Your task to perform on an android device: turn notification dots on Image 0: 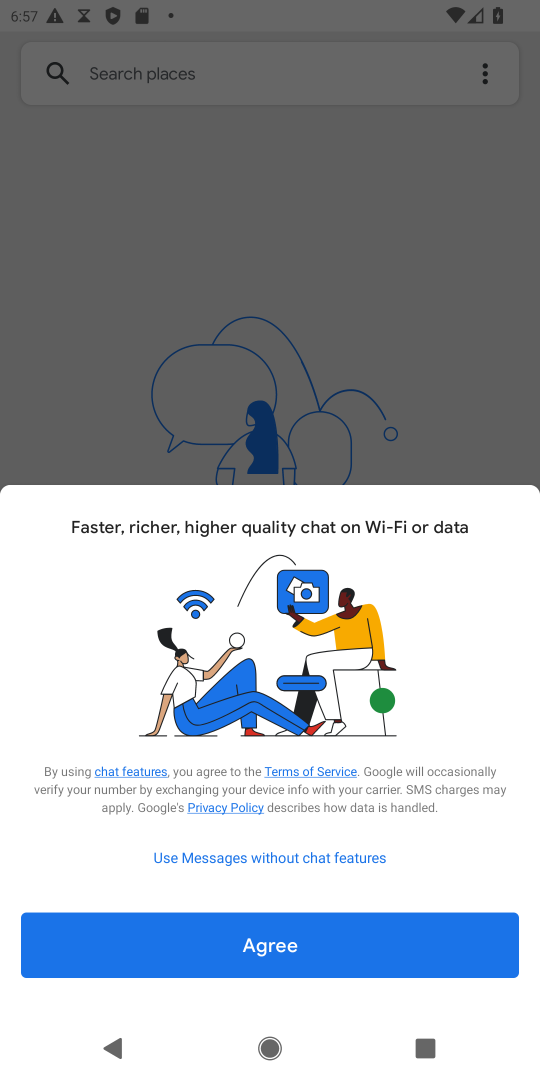
Step 0: press home button
Your task to perform on an android device: turn notification dots on Image 1: 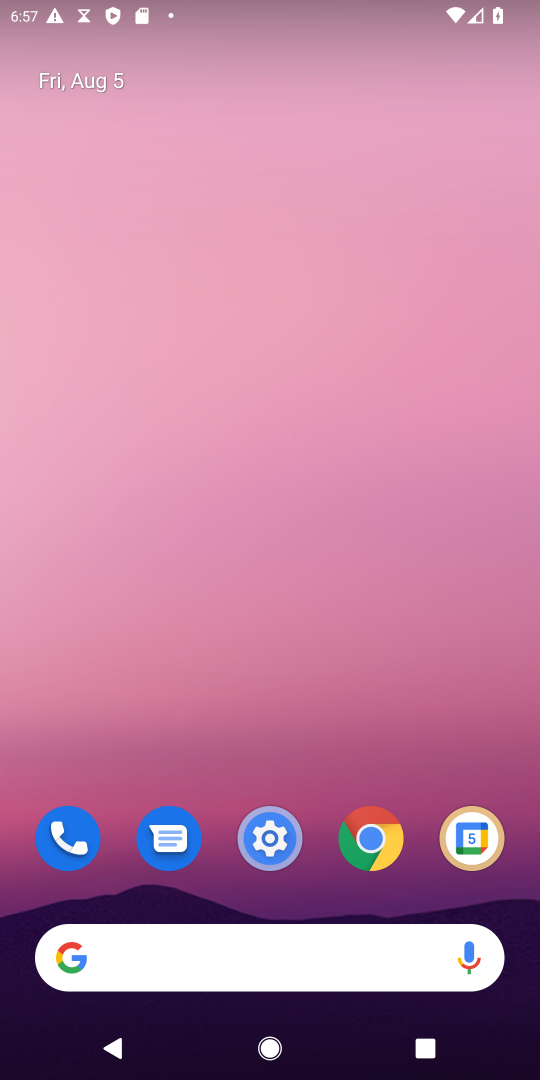
Step 1: drag from (286, 714) to (348, 29)
Your task to perform on an android device: turn notification dots on Image 2: 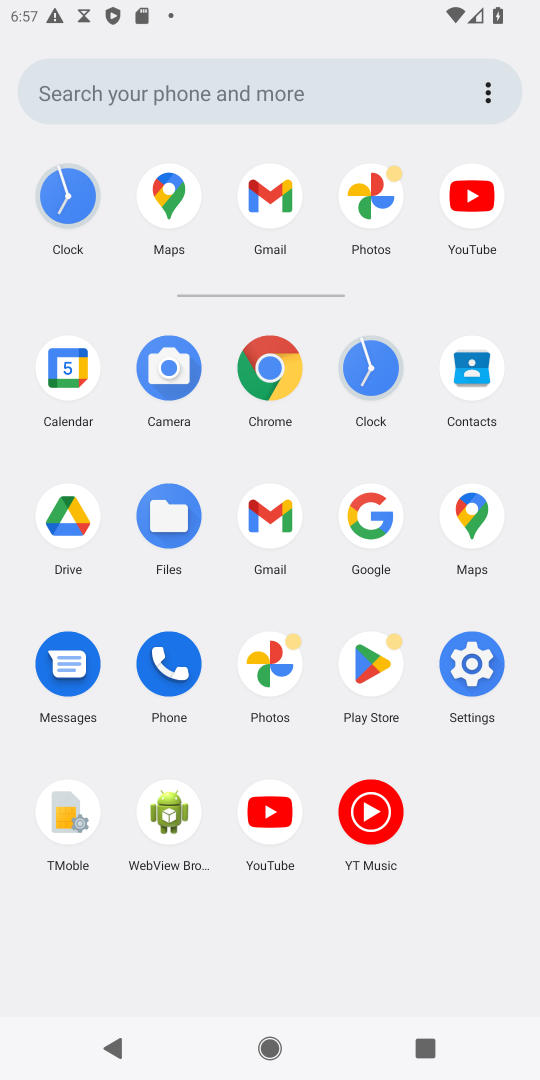
Step 2: click (466, 651)
Your task to perform on an android device: turn notification dots on Image 3: 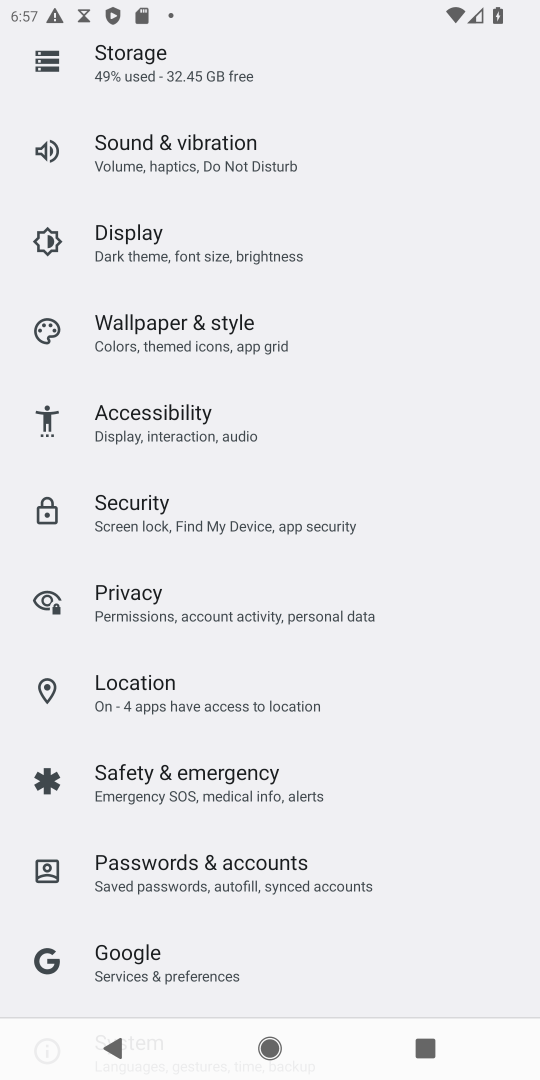
Step 3: drag from (131, 100) to (169, 875)
Your task to perform on an android device: turn notification dots on Image 4: 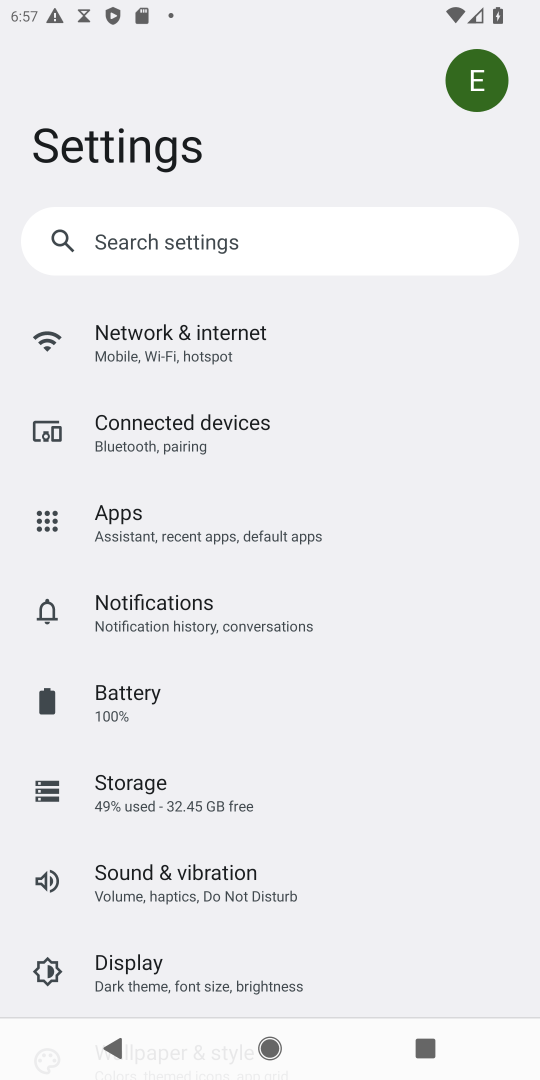
Step 4: click (191, 604)
Your task to perform on an android device: turn notification dots on Image 5: 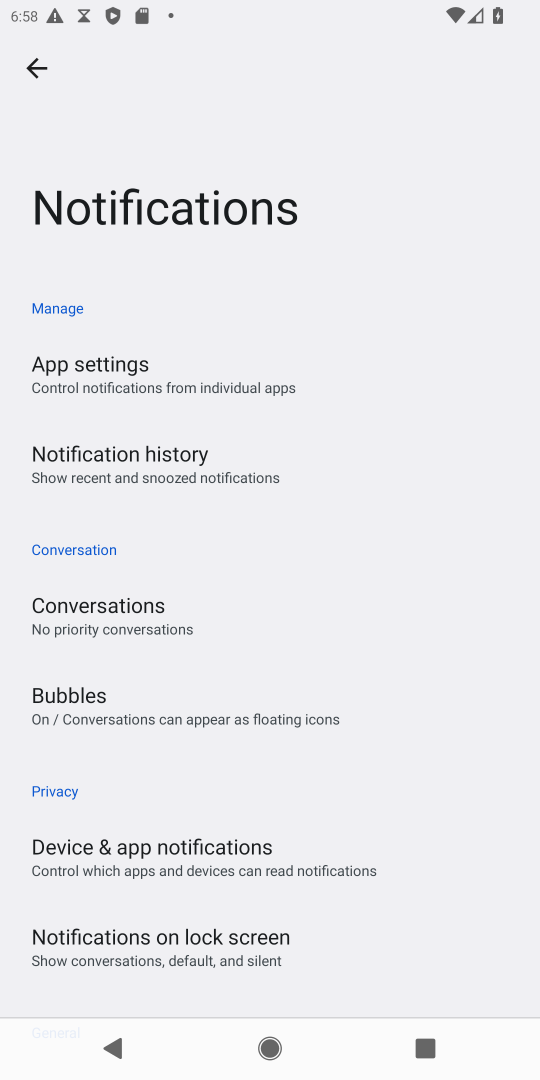
Step 5: drag from (129, 893) to (103, 396)
Your task to perform on an android device: turn notification dots on Image 6: 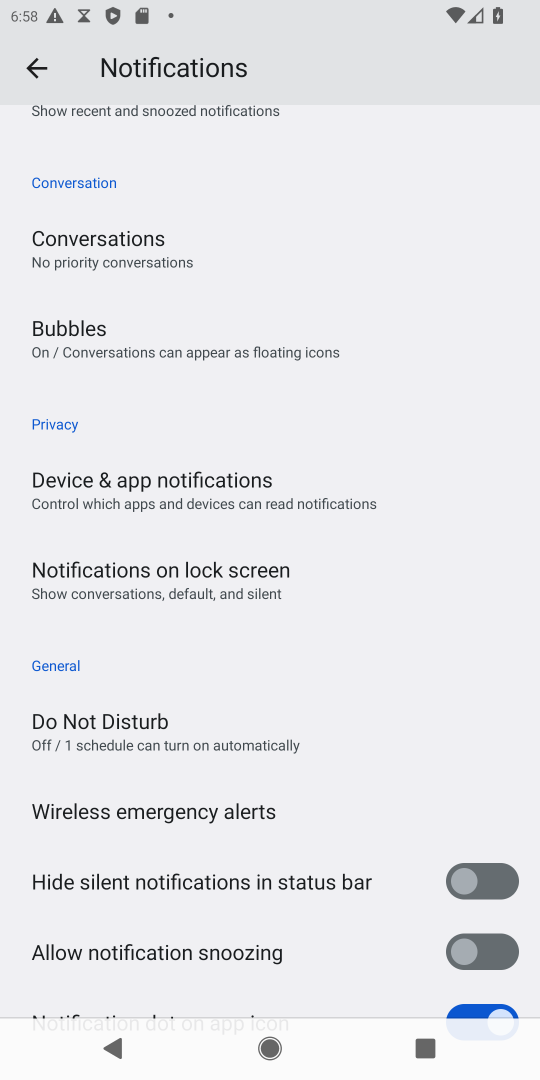
Step 6: drag from (142, 663) to (123, 243)
Your task to perform on an android device: turn notification dots on Image 7: 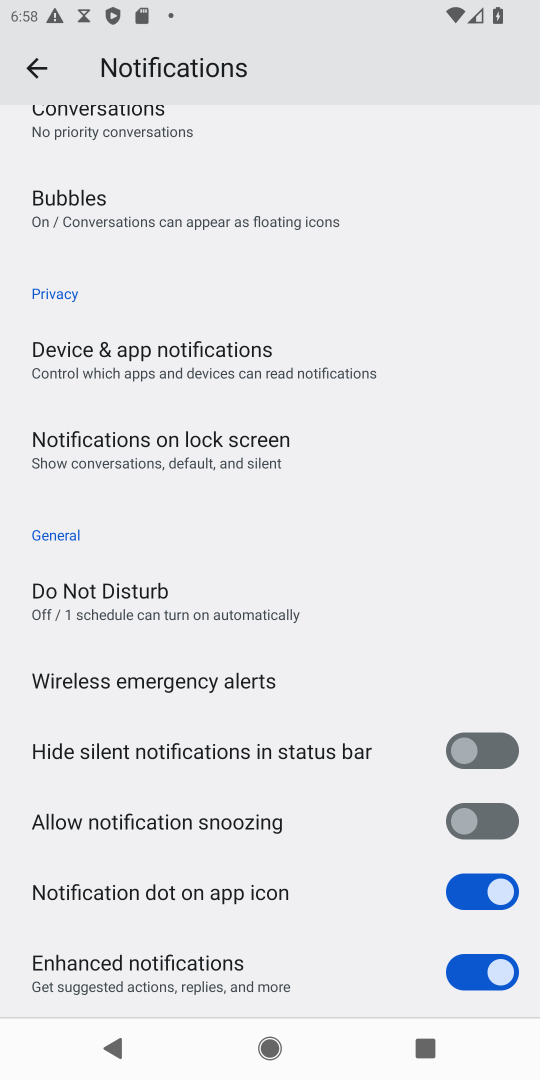
Step 7: drag from (140, 623) to (141, 85)
Your task to perform on an android device: turn notification dots on Image 8: 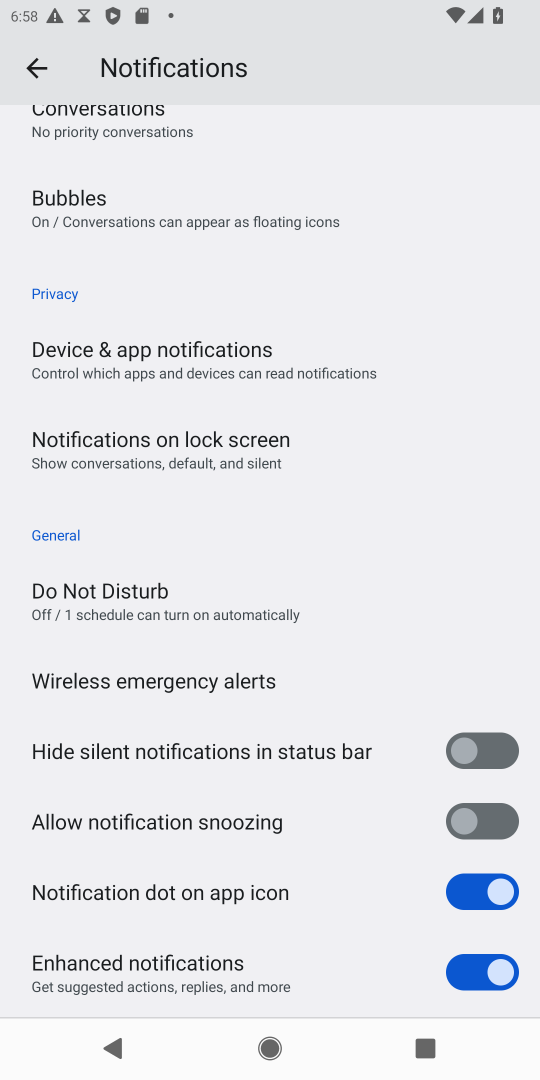
Step 8: drag from (117, 545) to (146, 858)
Your task to perform on an android device: turn notification dots on Image 9: 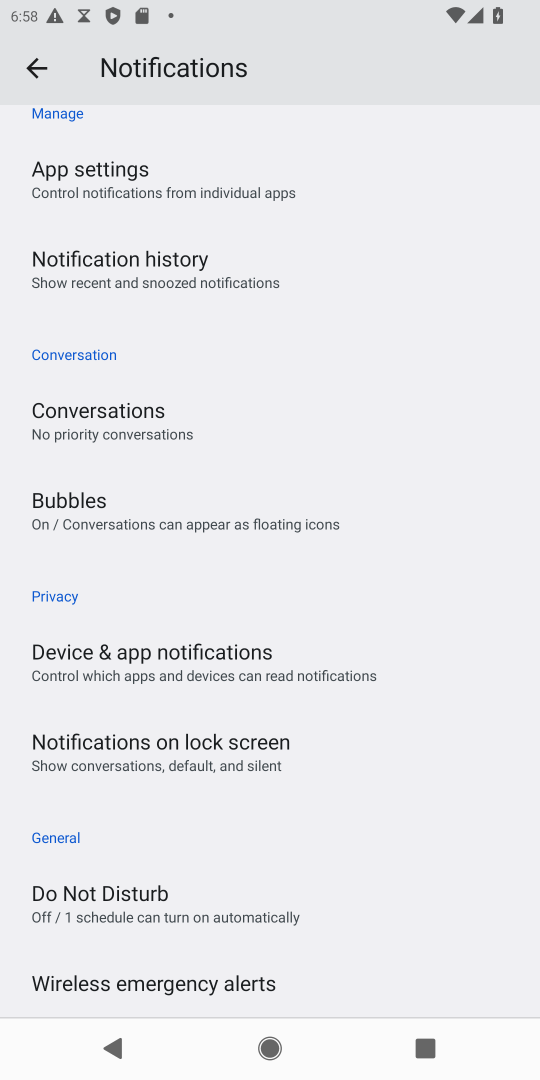
Step 9: click (189, 650)
Your task to perform on an android device: turn notification dots on Image 10: 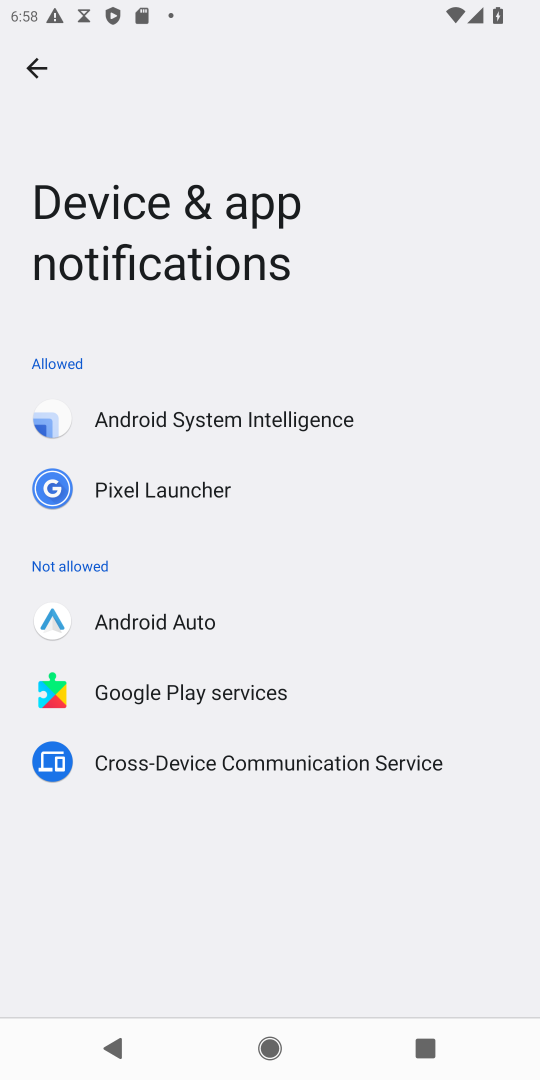
Step 10: click (23, 74)
Your task to perform on an android device: turn notification dots on Image 11: 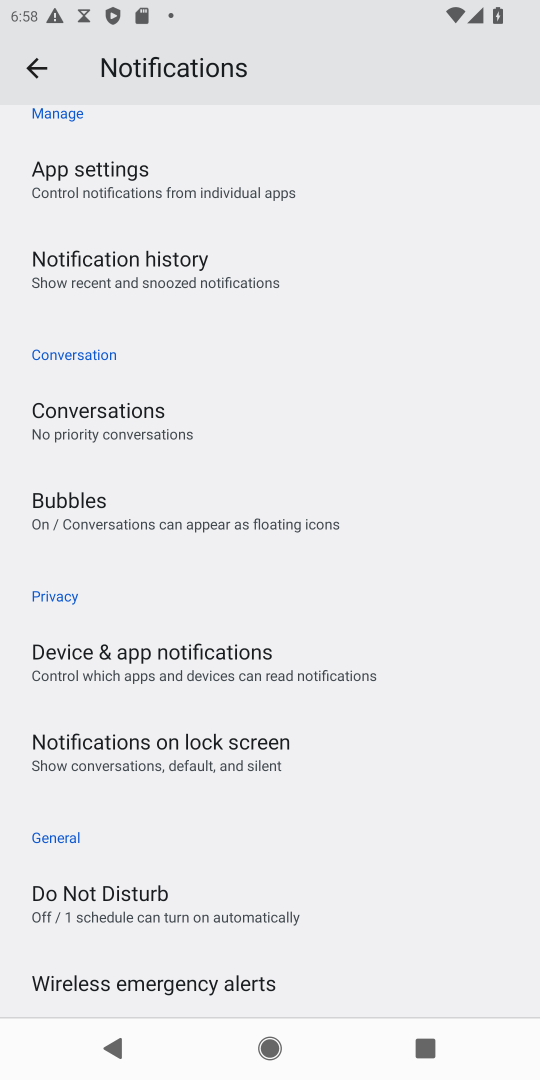
Step 11: task complete